Your task to perform on an android device: set an alarm Image 0: 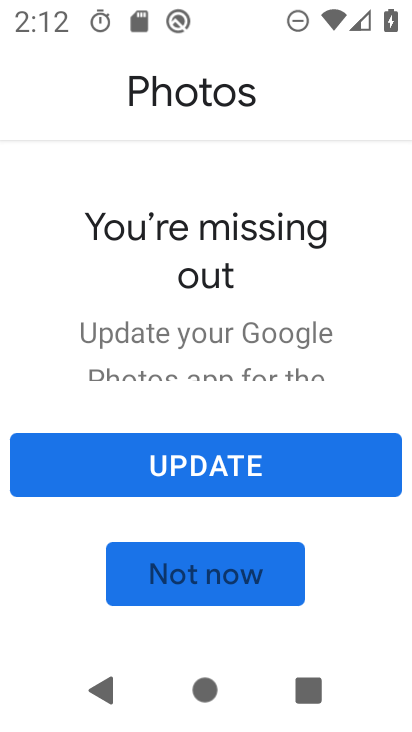
Step 0: press home button
Your task to perform on an android device: set an alarm Image 1: 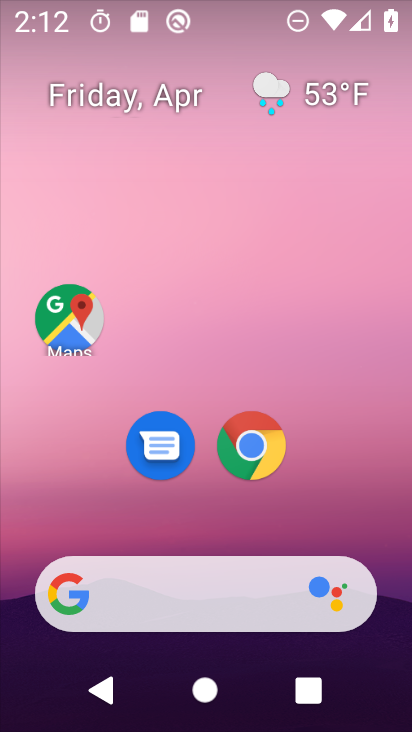
Step 1: drag from (354, 506) to (371, 136)
Your task to perform on an android device: set an alarm Image 2: 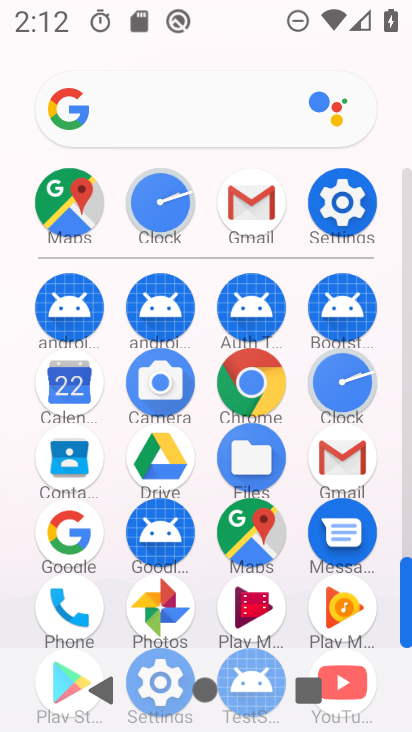
Step 2: click (349, 381)
Your task to perform on an android device: set an alarm Image 3: 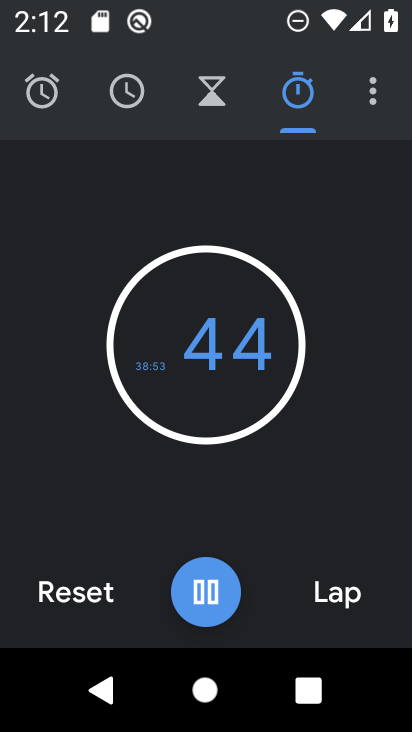
Step 3: click (55, 91)
Your task to perform on an android device: set an alarm Image 4: 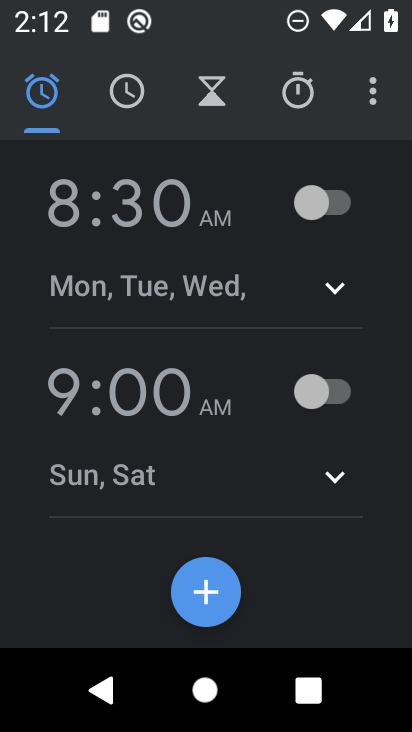
Step 4: click (206, 608)
Your task to perform on an android device: set an alarm Image 5: 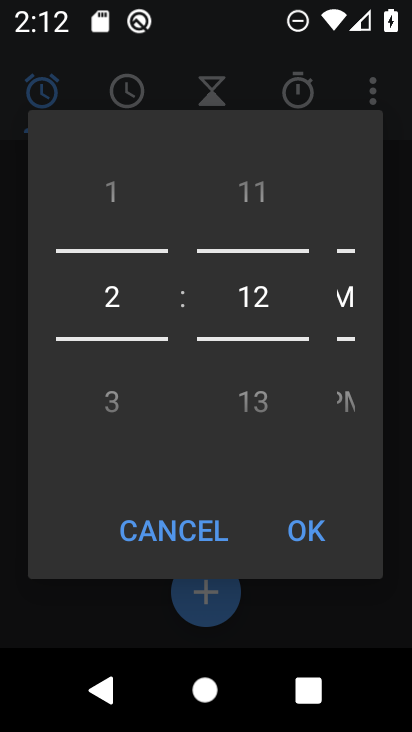
Step 5: click (317, 540)
Your task to perform on an android device: set an alarm Image 6: 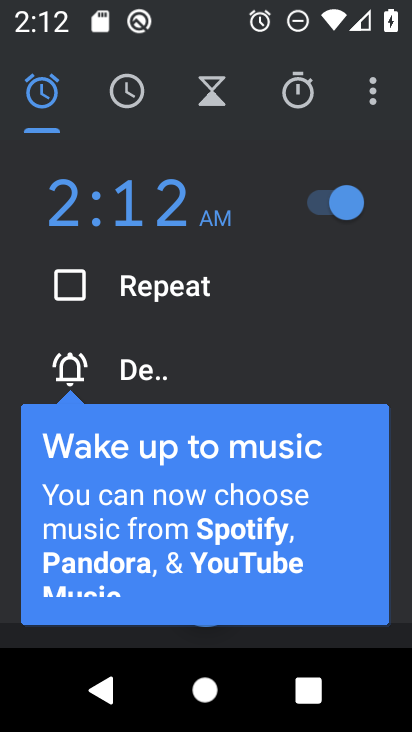
Step 6: task complete